Your task to perform on an android device: Show me popular videos on Youtube Image 0: 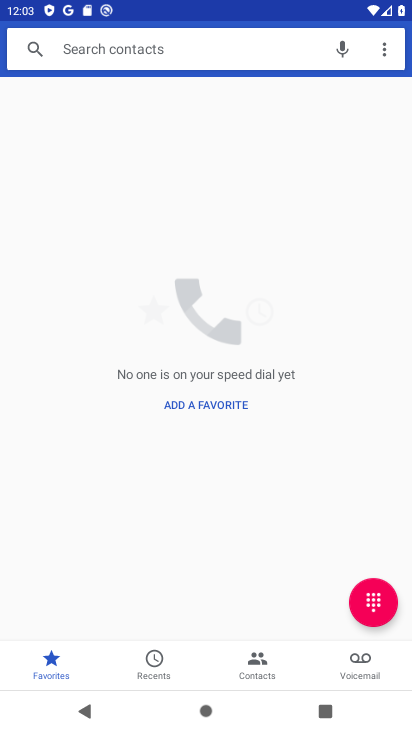
Step 0: press home button
Your task to perform on an android device: Show me popular videos on Youtube Image 1: 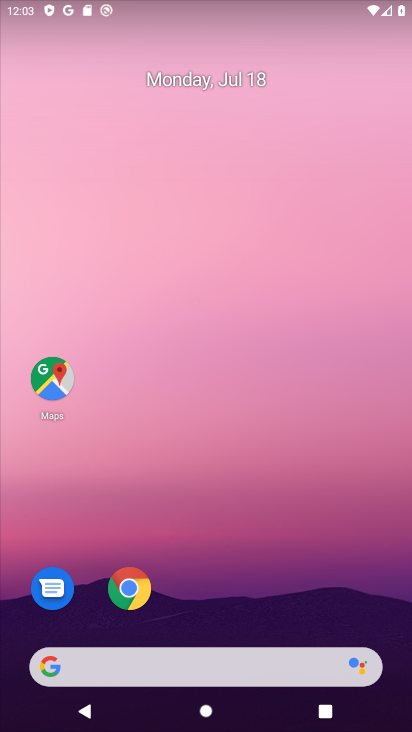
Step 1: drag from (257, 576) to (228, 127)
Your task to perform on an android device: Show me popular videos on Youtube Image 2: 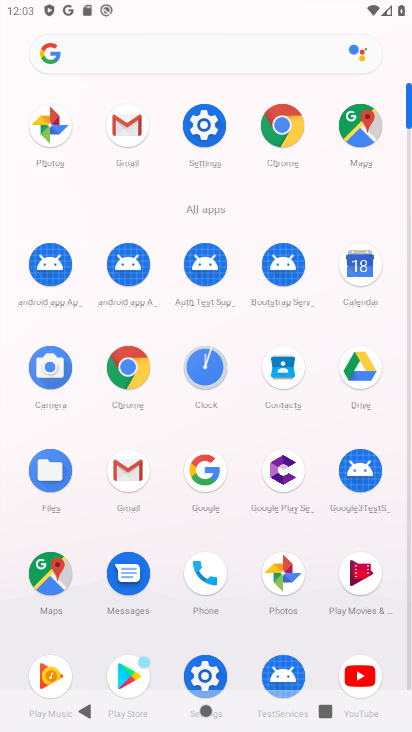
Step 2: click (352, 669)
Your task to perform on an android device: Show me popular videos on Youtube Image 3: 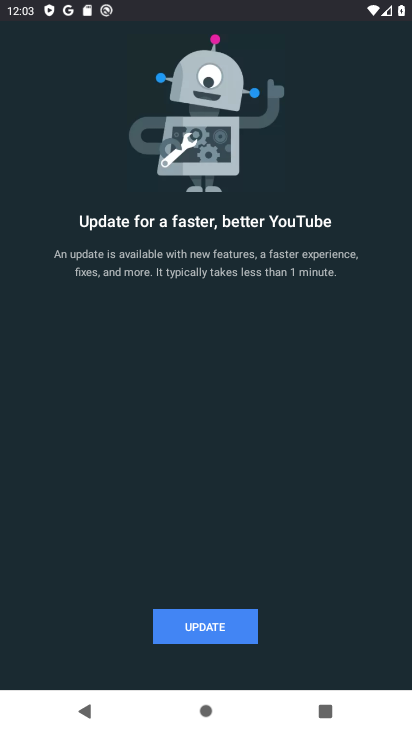
Step 3: click (198, 636)
Your task to perform on an android device: Show me popular videos on Youtube Image 4: 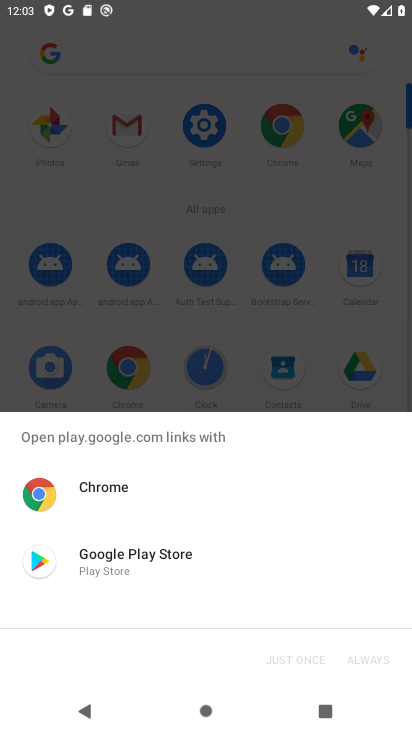
Step 4: click (148, 584)
Your task to perform on an android device: Show me popular videos on Youtube Image 5: 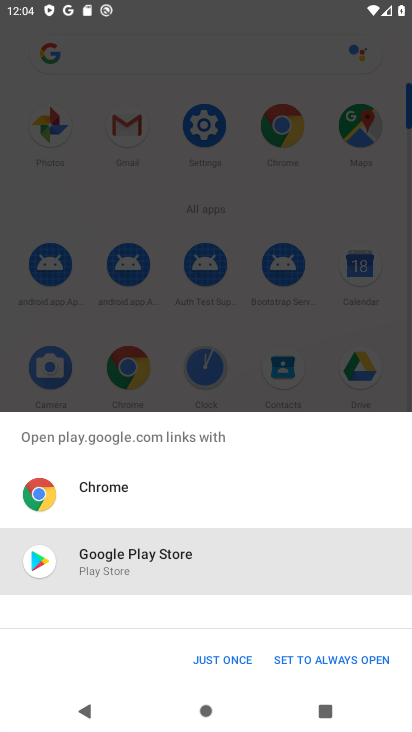
Step 5: click (211, 664)
Your task to perform on an android device: Show me popular videos on Youtube Image 6: 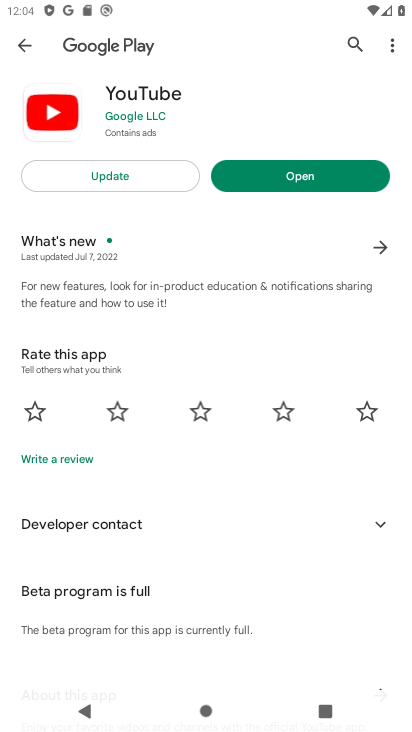
Step 6: click (160, 163)
Your task to perform on an android device: Show me popular videos on Youtube Image 7: 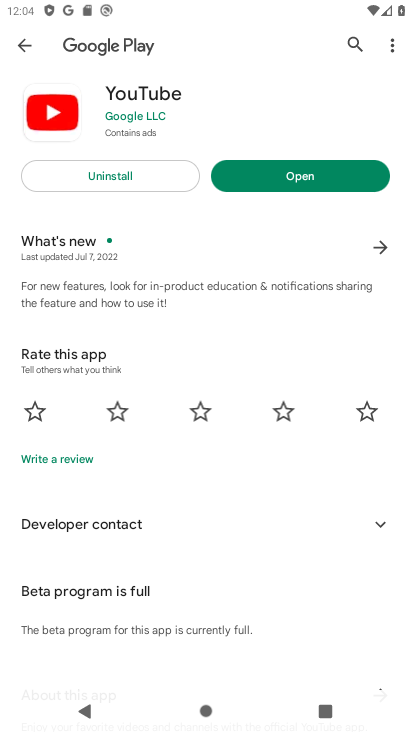
Step 7: click (355, 167)
Your task to perform on an android device: Show me popular videos on Youtube Image 8: 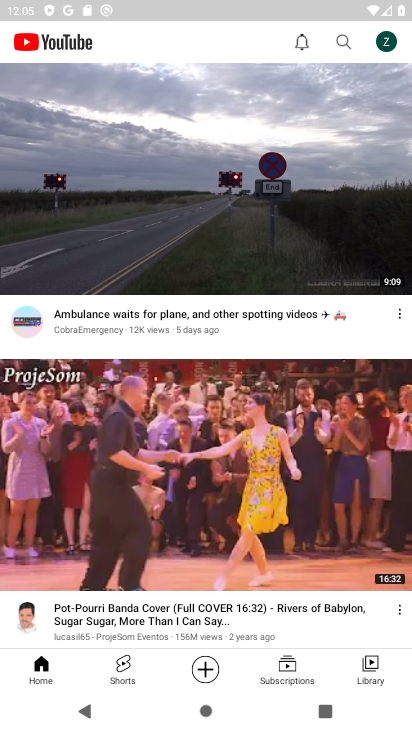
Step 8: drag from (116, 282) to (106, 441)
Your task to perform on an android device: Show me popular videos on Youtube Image 9: 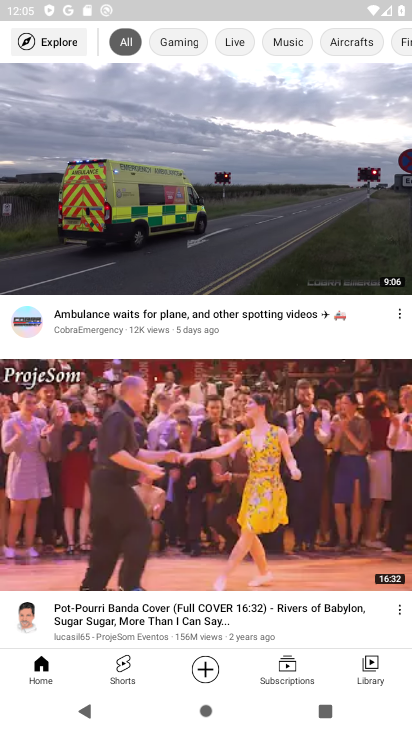
Step 9: click (52, 40)
Your task to perform on an android device: Show me popular videos on Youtube Image 10: 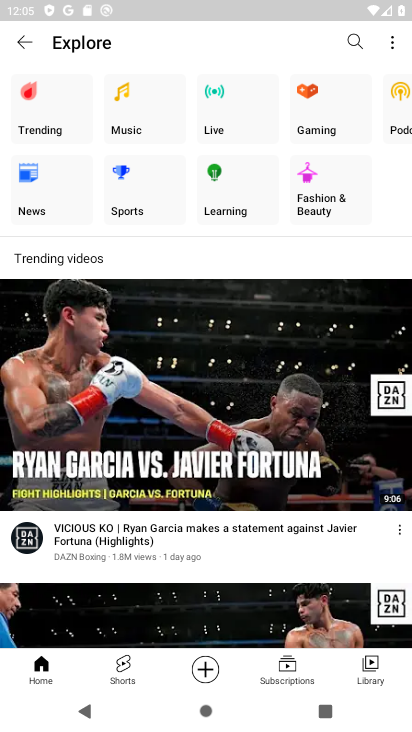
Step 10: click (37, 111)
Your task to perform on an android device: Show me popular videos on Youtube Image 11: 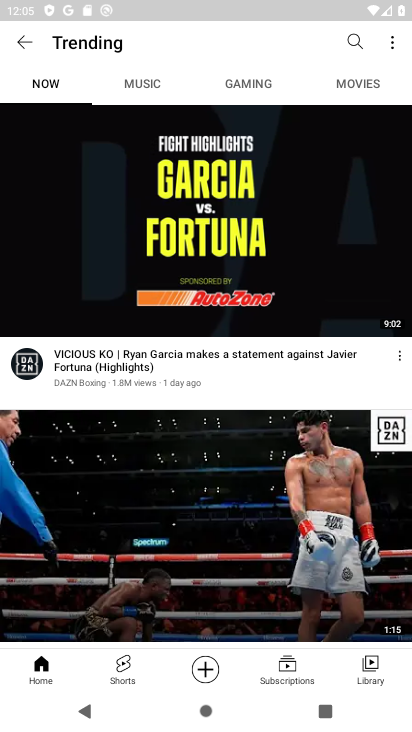
Step 11: task complete